Your task to perform on an android device: Go to eBay Image 0: 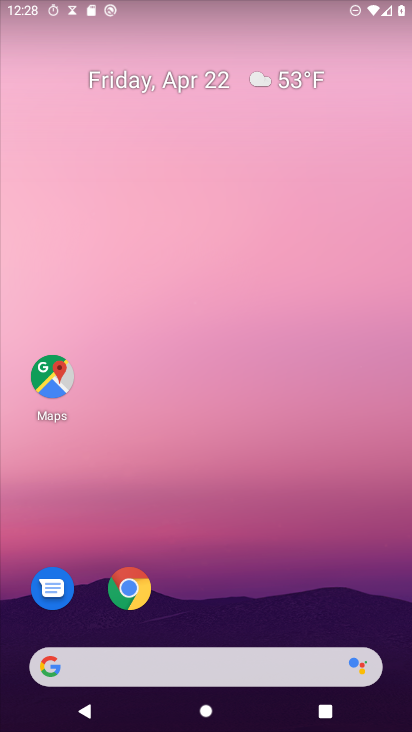
Step 0: click (124, 589)
Your task to perform on an android device: Go to eBay Image 1: 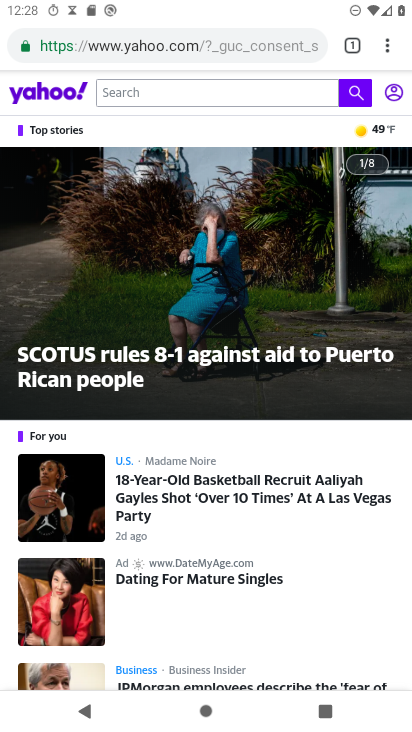
Step 1: click (230, 37)
Your task to perform on an android device: Go to eBay Image 2: 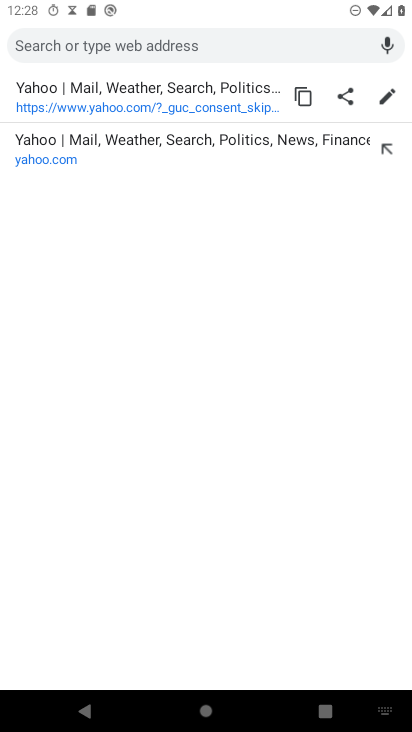
Step 2: type "ebay"
Your task to perform on an android device: Go to eBay Image 3: 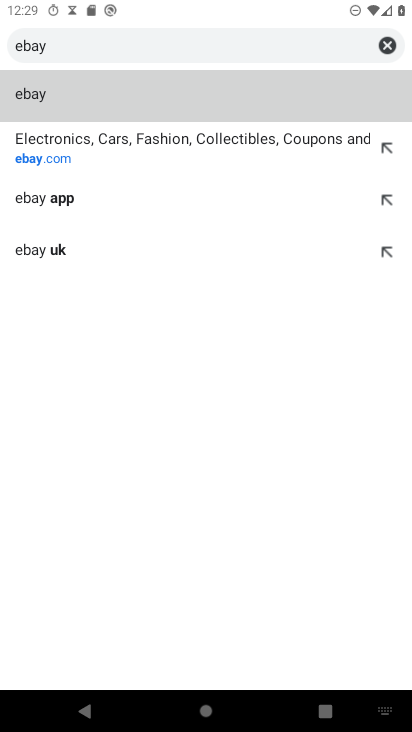
Step 3: click (40, 98)
Your task to perform on an android device: Go to eBay Image 4: 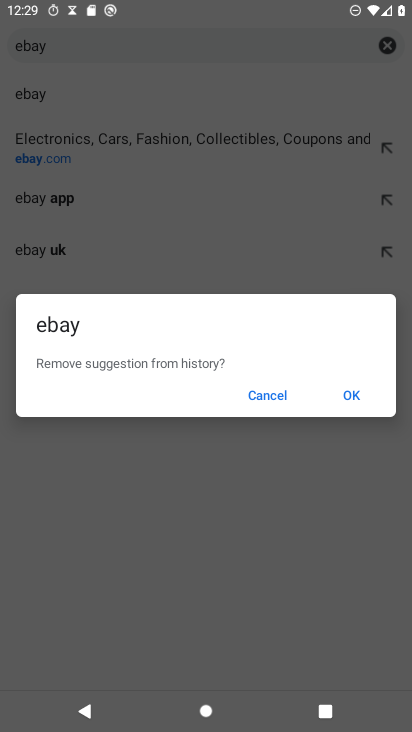
Step 4: click (253, 404)
Your task to perform on an android device: Go to eBay Image 5: 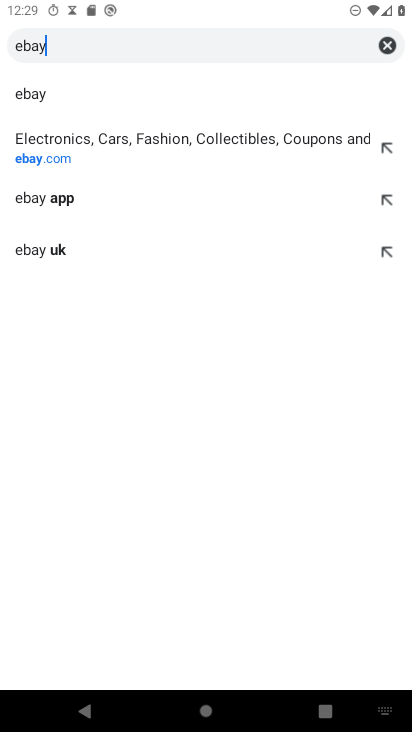
Step 5: click (36, 105)
Your task to perform on an android device: Go to eBay Image 6: 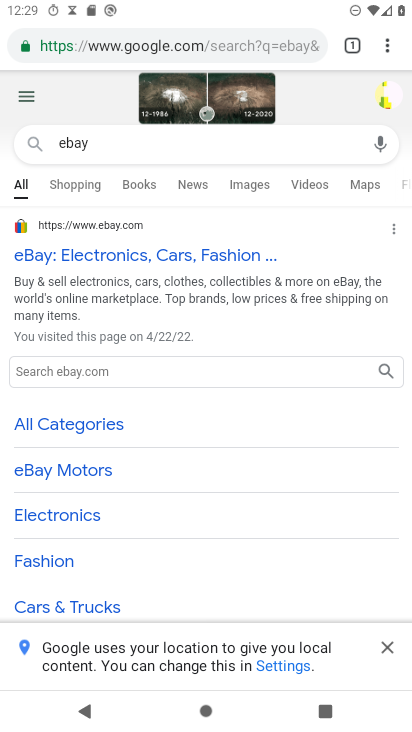
Step 6: click (32, 248)
Your task to perform on an android device: Go to eBay Image 7: 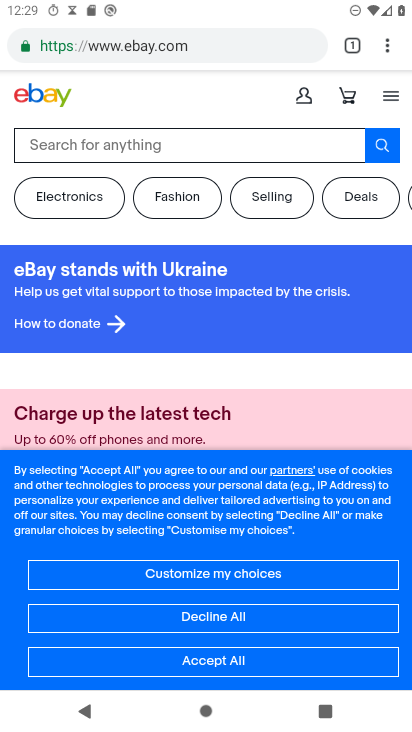
Step 7: task complete